Your task to perform on an android device: Go to sound settings Image 0: 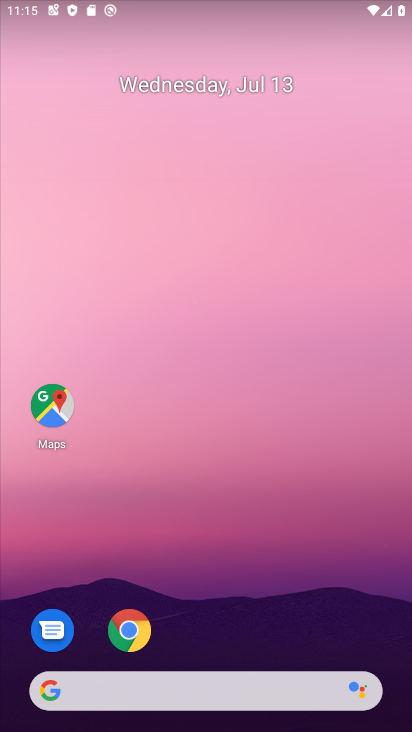
Step 0: drag from (324, 626) to (331, 150)
Your task to perform on an android device: Go to sound settings Image 1: 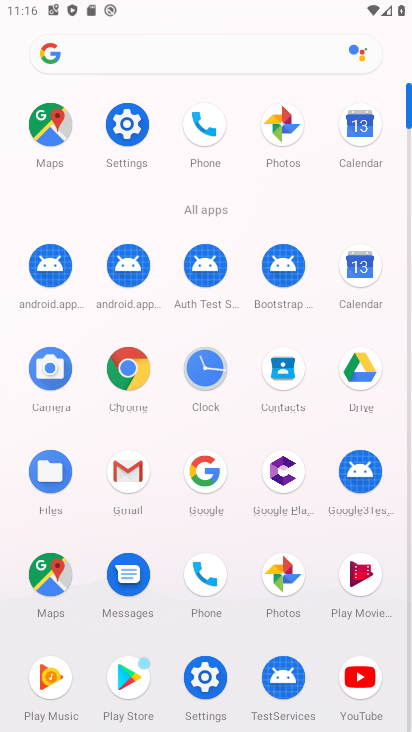
Step 1: click (132, 134)
Your task to perform on an android device: Go to sound settings Image 2: 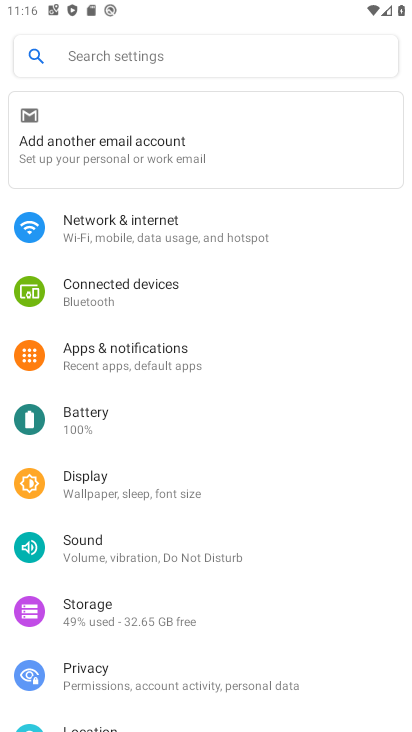
Step 2: drag from (323, 526) to (328, 409)
Your task to perform on an android device: Go to sound settings Image 3: 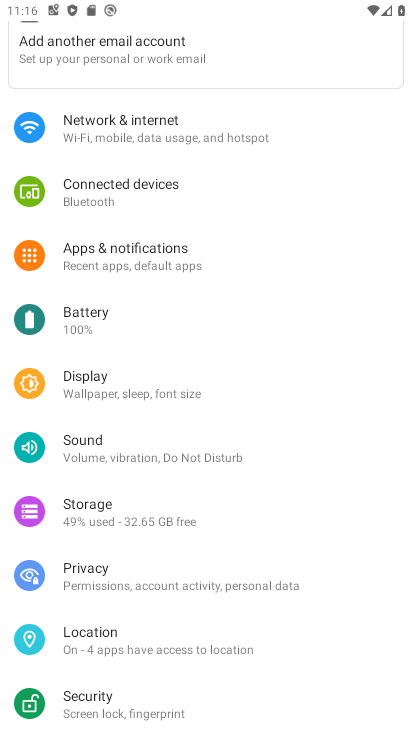
Step 3: drag from (332, 564) to (325, 359)
Your task to perform on an android device: Go to sound settings Image 4: 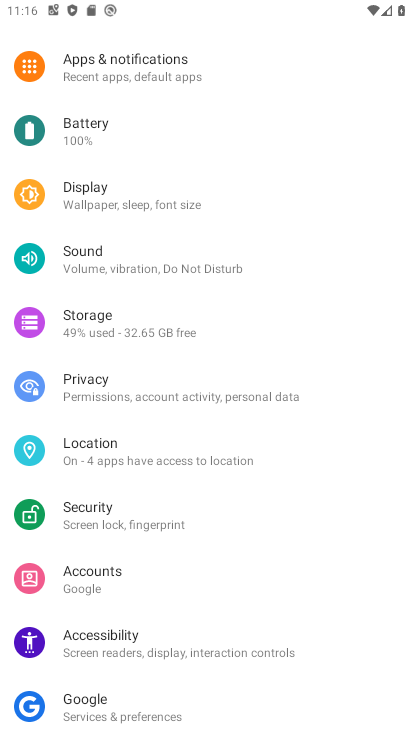
Step 4: drag from (324, 569) to (318, 363)
Your task to perform on an android device: Go to sound settings Image 5: 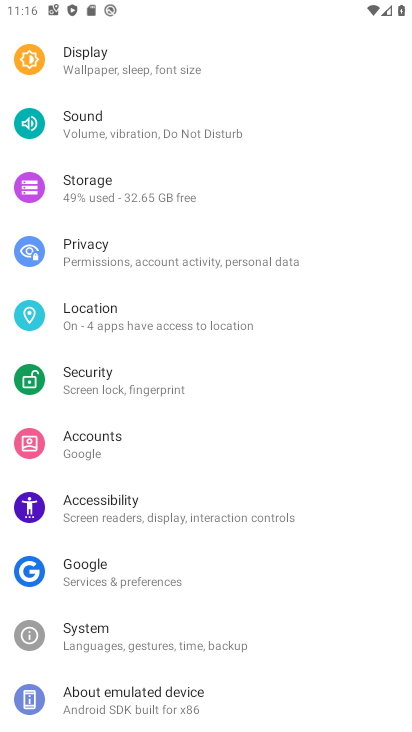
Step 5: drag from (324, 355) to (325, 421)
Your task to perform on an android device: Go to sound settings Image 6: 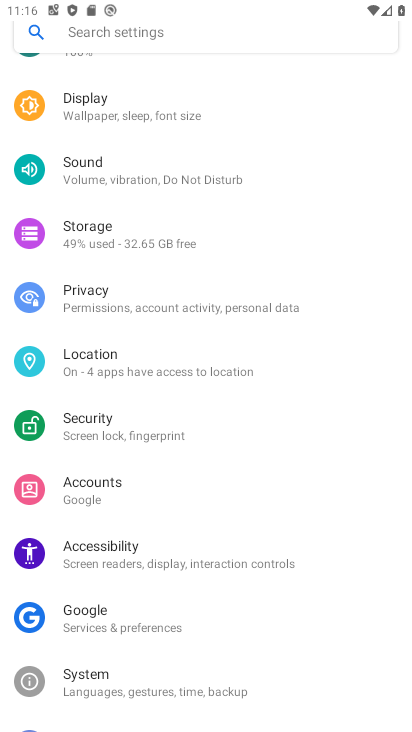
Step 6: drag from (336, 354) to (355, 536)
Your task to perform on an android device: Go to sound settings Image 7: 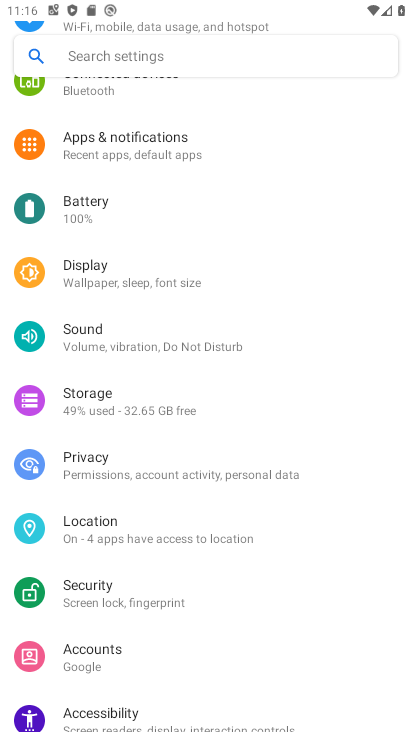
Step 7: drag from (333, 386) to (356, 468)
Your task to perform on an android device: Go to sound settings Image 8: 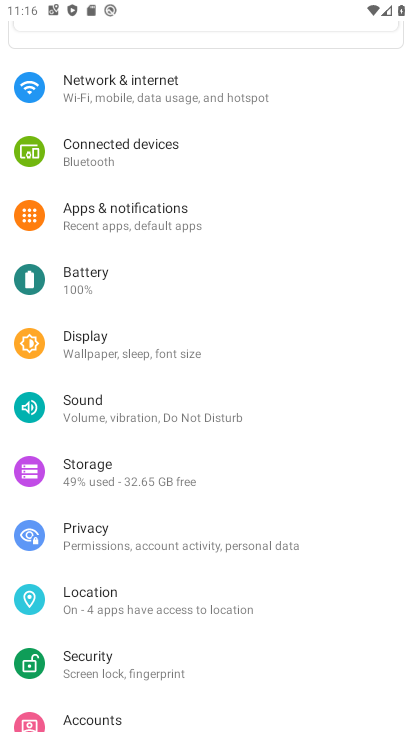
Step 8: drag from (330, 283) to (341, 466)
Your task to perform on an android device: Go to sound settings Image 9: 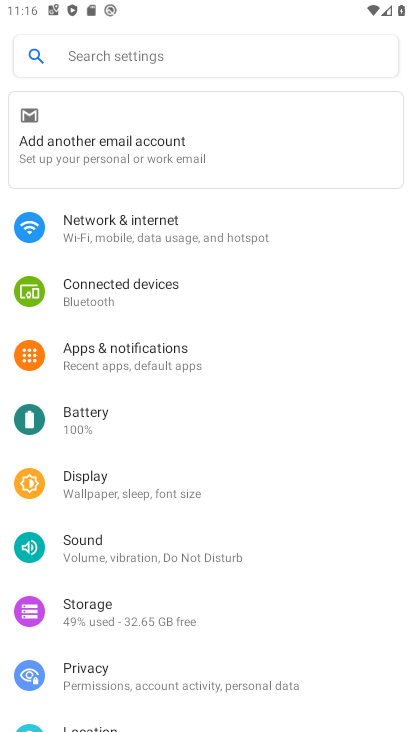
Step 9: click (219, 558)
Your task to perform on an android device: Go to sound settings Image 10: 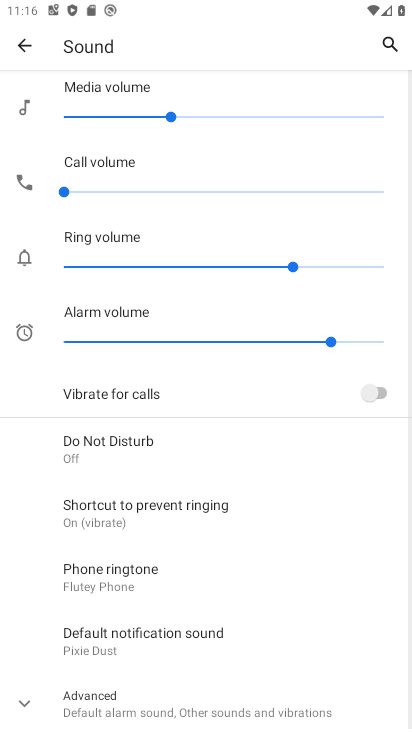
Step 10: drag from (325, 565) to (323, 423)
Your task to perform on an android device: Go to sound settings Image 11: 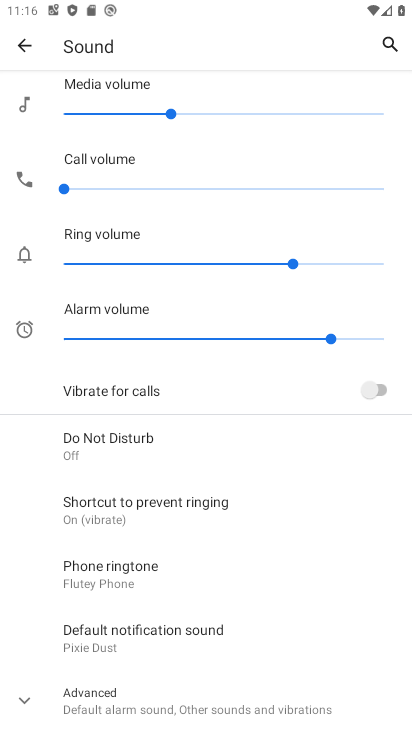
Step 11: click (230, 697)
Your task to perform on an android device: Go to sound settings Image 12: 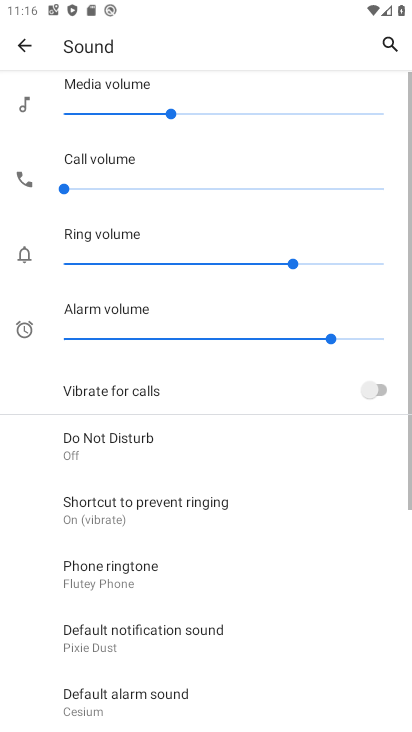
Step 12: task complete